Your task to perform on an android device: Open Google Maps Image 0: 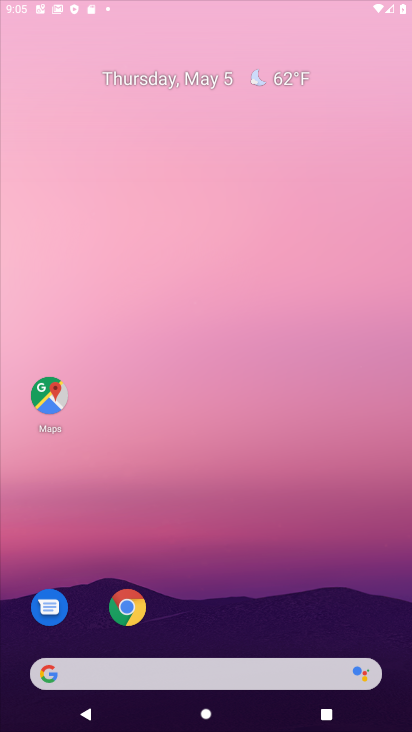
Step 0: click (290, 42)
Your task to perform on an android device: Open Google Maps Image 1: 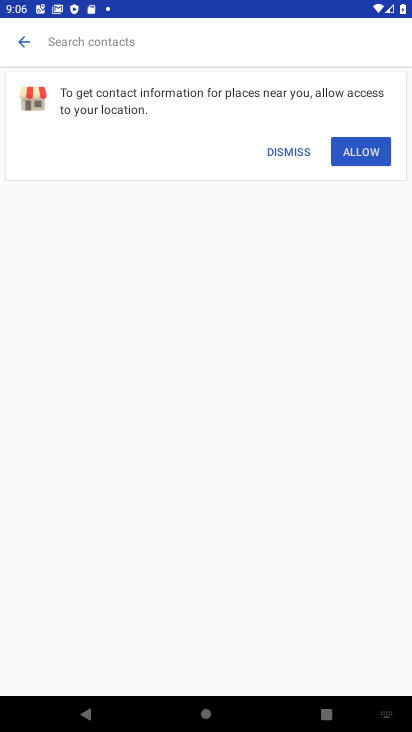
Step 1: press back button
Your task to perform on an android device: Open Google Maps Image 2: 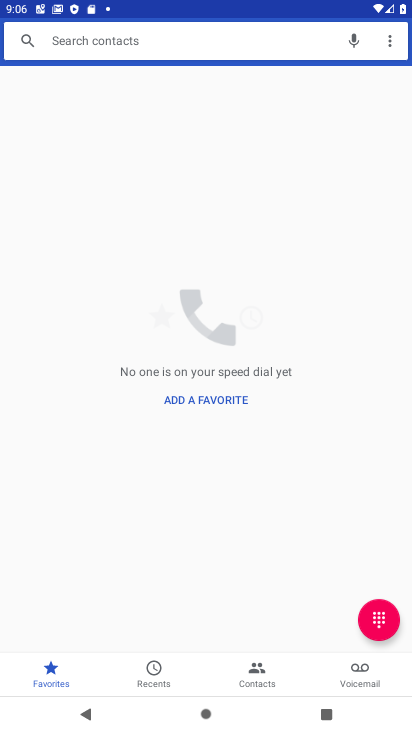
Step 2: press back button
Your task to perform on an android device: Open Google Maps Image 3: 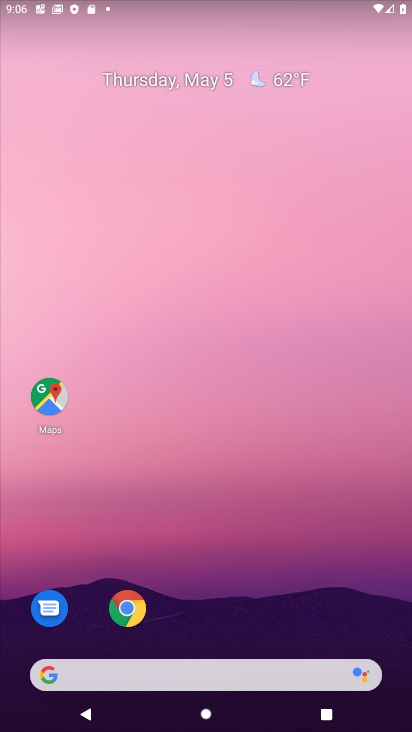
Step 3: drag from (305, 587) to (310, 61)
Your task to perform on an android device: Open Google Maps Image 4: 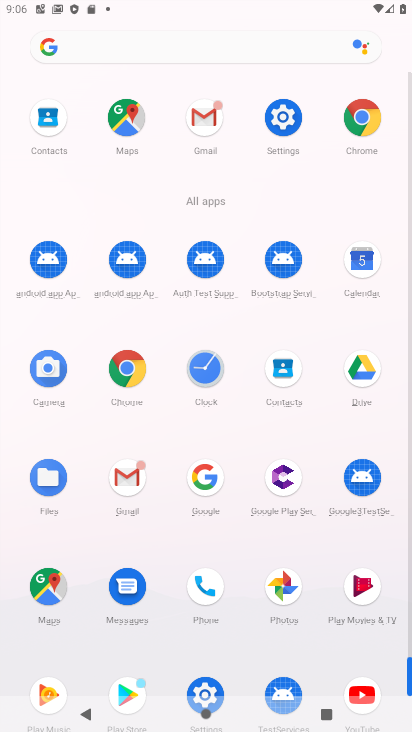
Step 4: drag from (5, 598) to (6, 319)
Your task to perform on an android device: Open Google Maps Image 5: 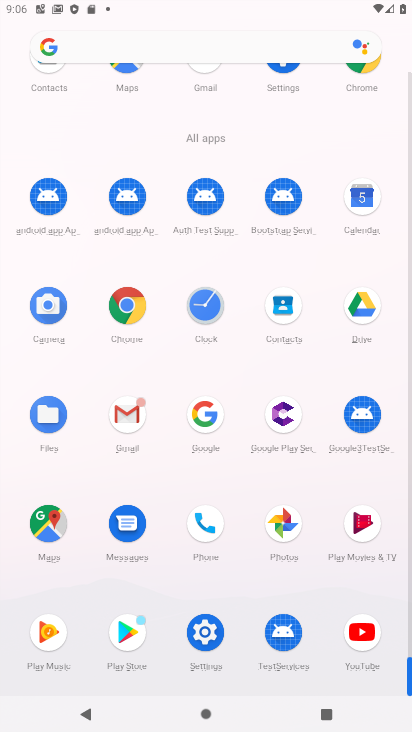
Step 5: click (50, 523)
Your task to perform on an android device: Open Google Maps Image 6: 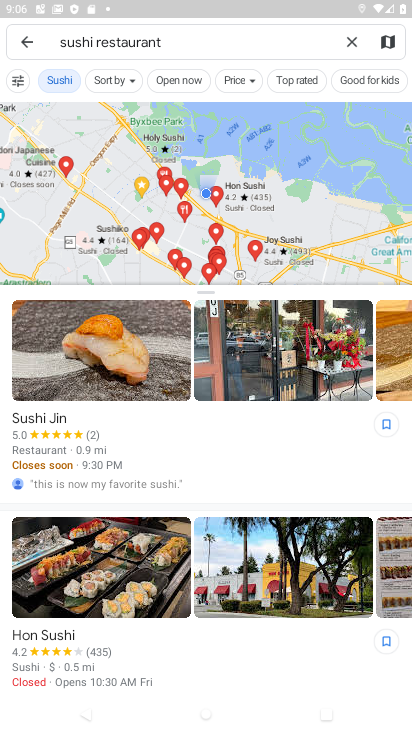
Step 6: click (22, 45)
Your task to perform on an android device: Open Google Maps Image 7: 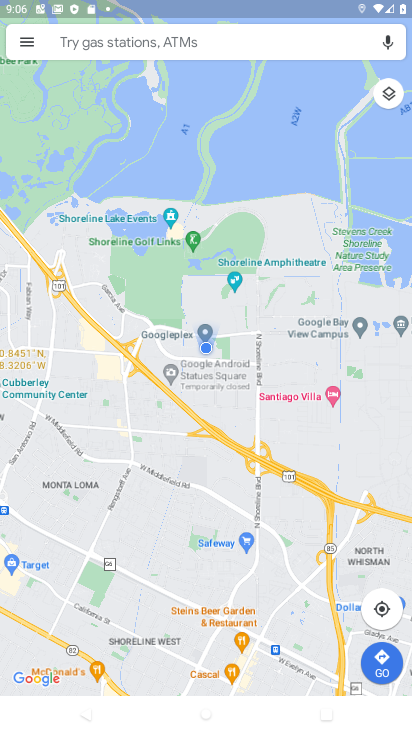
Step 7: task complete